Your task to perform on an android device: When is my next appointment? Image 0: 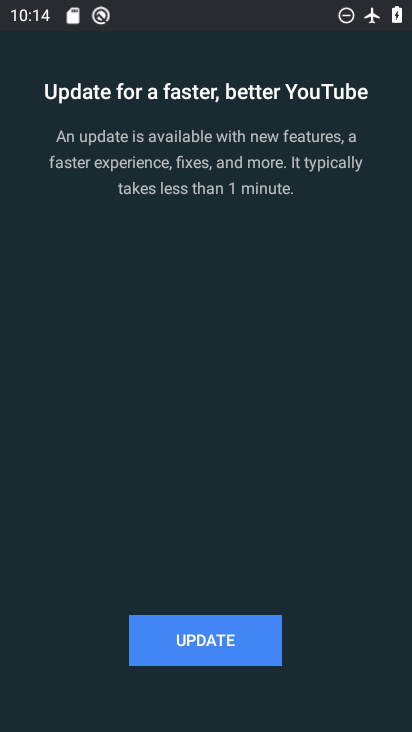
Step 0: press back button
Your task to perform on an android device: When is my next appointment? Image 1: 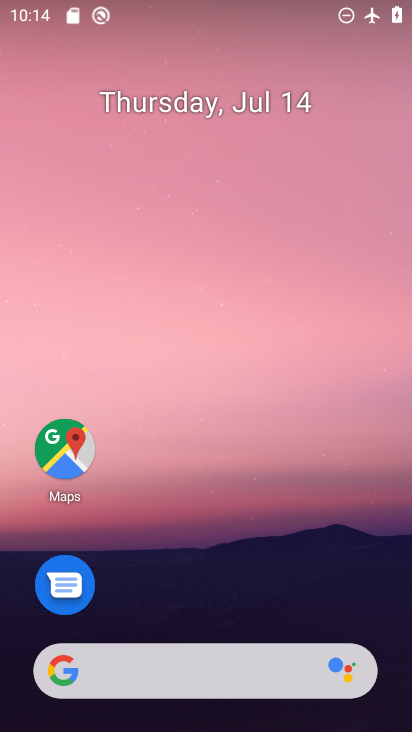
Step 1: drag from (165, 627) to (51, 61)
Your task to perform on an android device: When is my next appointment? Image 2: 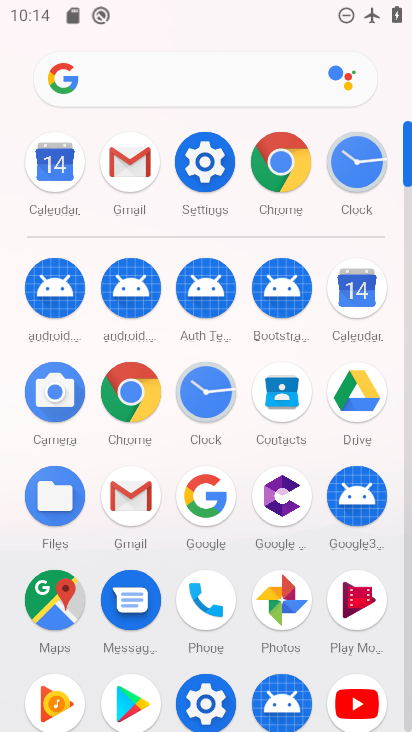
Step 2: click (356, 288)
Your task to perform on an android device: When is my next appointment? Image 3: 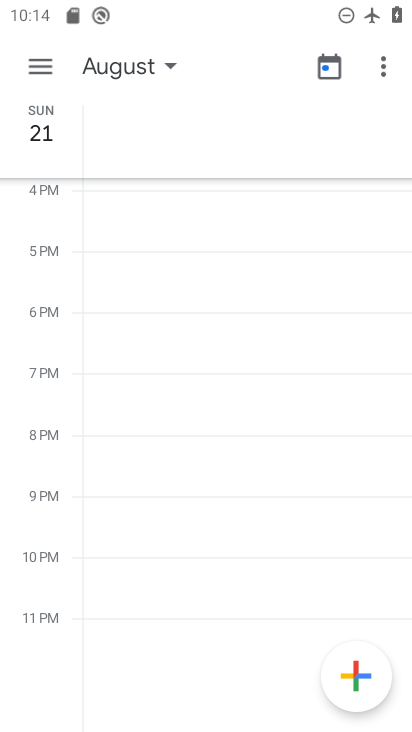
Step 3: click (41, 65)
Your task to perform on an android device: When is my next appointment? Image 4: 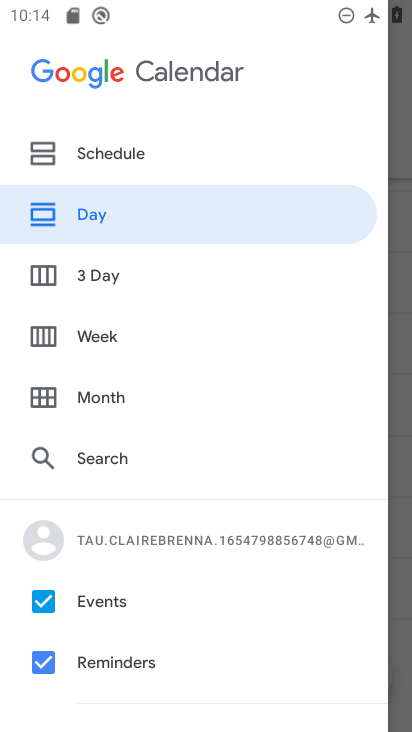
Step 4: click (97, 169)
Your task to perform on an android device: When is my next appointment? Image 5: 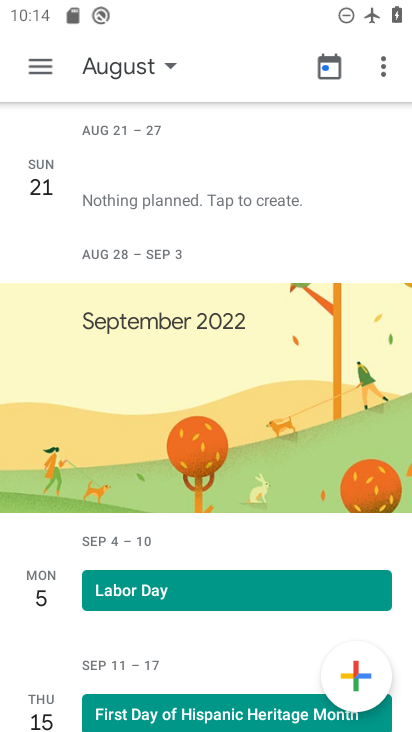
Step 5: click (221, 612)
Your task to perform on an android device: When is my next appointment? Image 6: 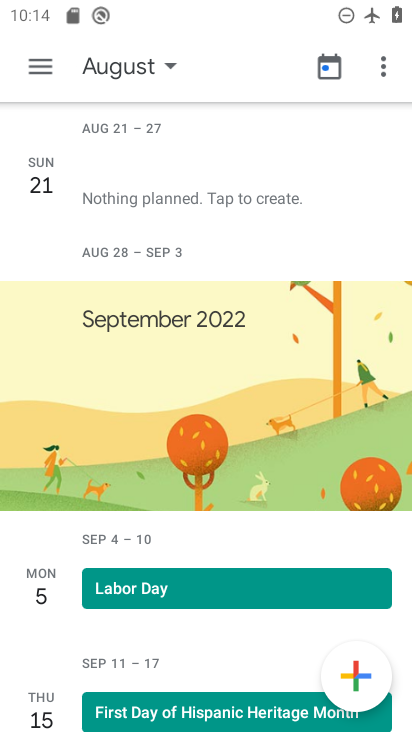
Step 6: click (126, 64)
Your task to perform on an android device: When is my next appointment? Image 7: 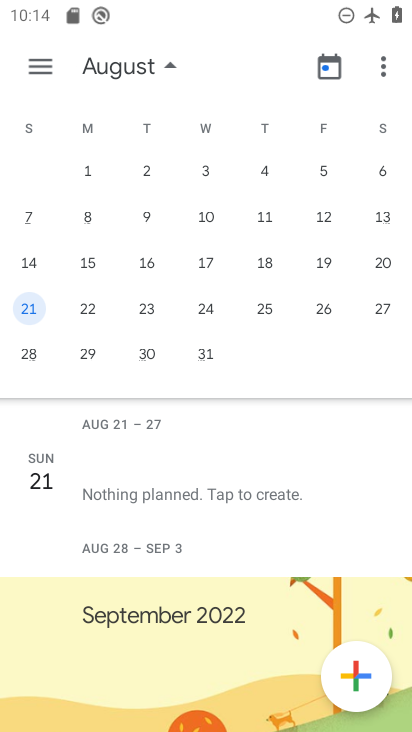
Step 7: click (126, 64)
Your task to perform on an android device: When is my next appointment? Image 8: 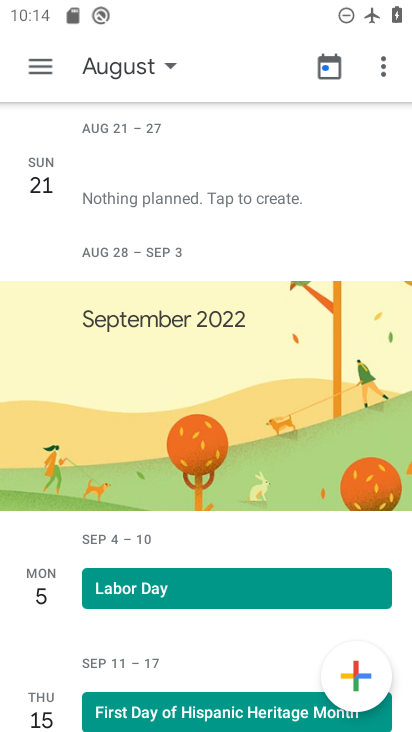
Step 8: click (318, 65)
Your task to perform on an android device: When is my next appointment? Image 9: 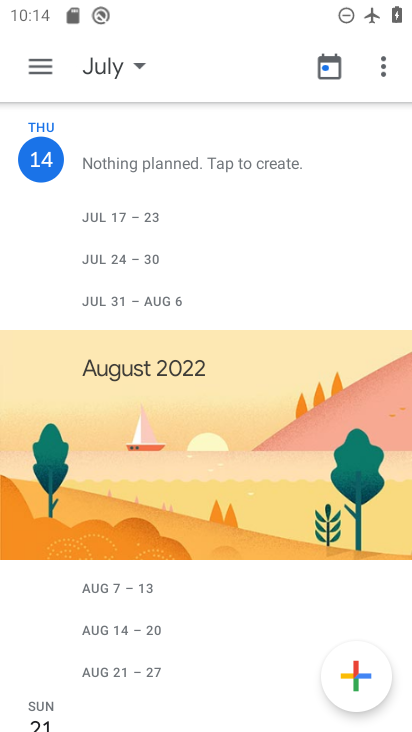
Step 9: task complete